Your task to perform on an android device: toggle data saver in the chrome app Image 0: 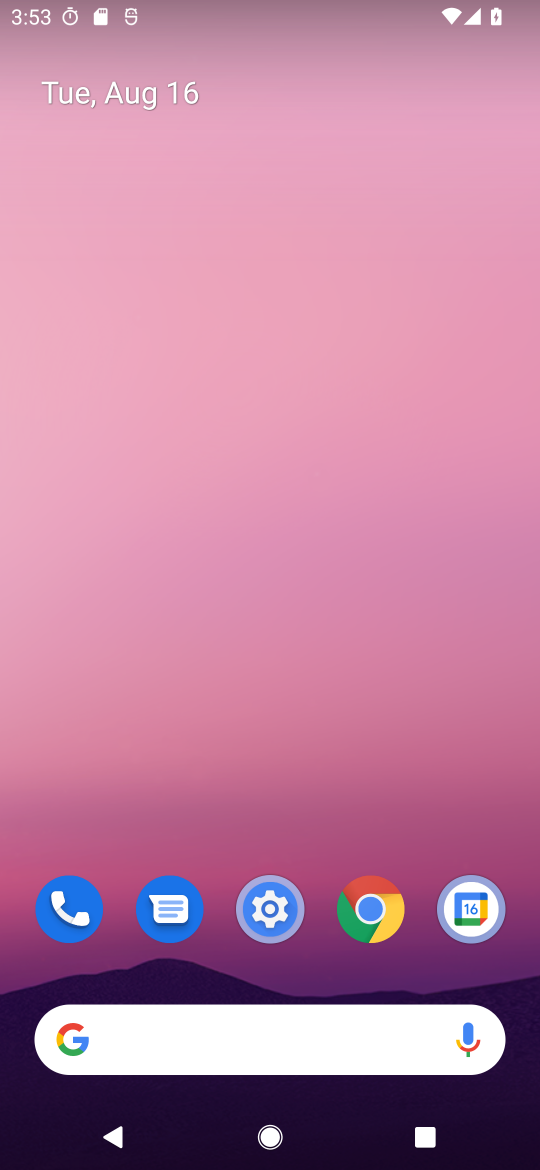
Step 0: click (368, 914)
Your task to perform on an android device: toggle data saver in the chrome app Image 1: 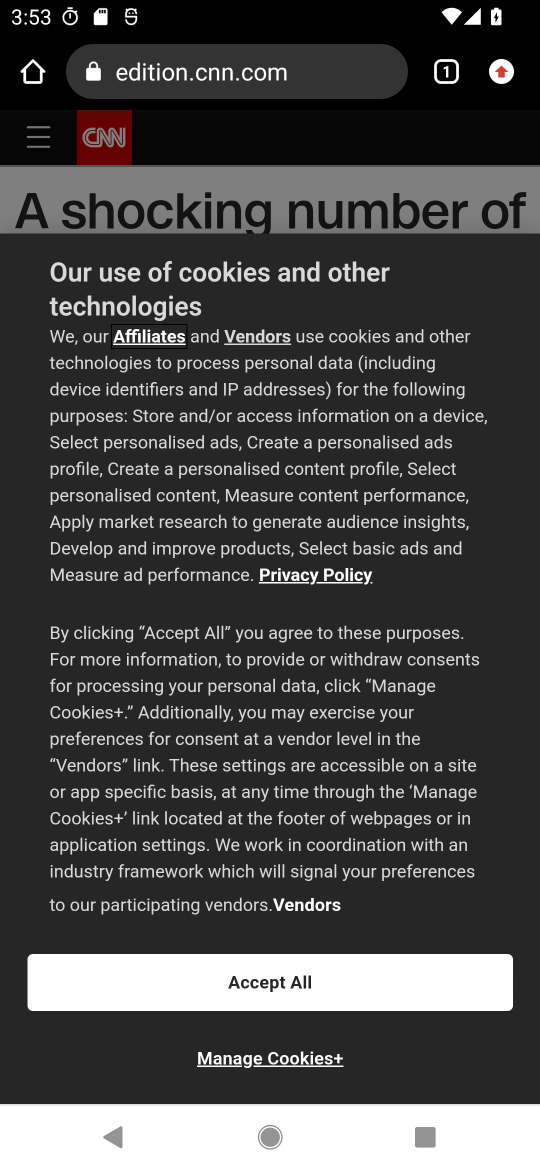
Step 1: click (502, 85)
Your task to perform on an android device: toggle data saver in the chrome app Image 2: 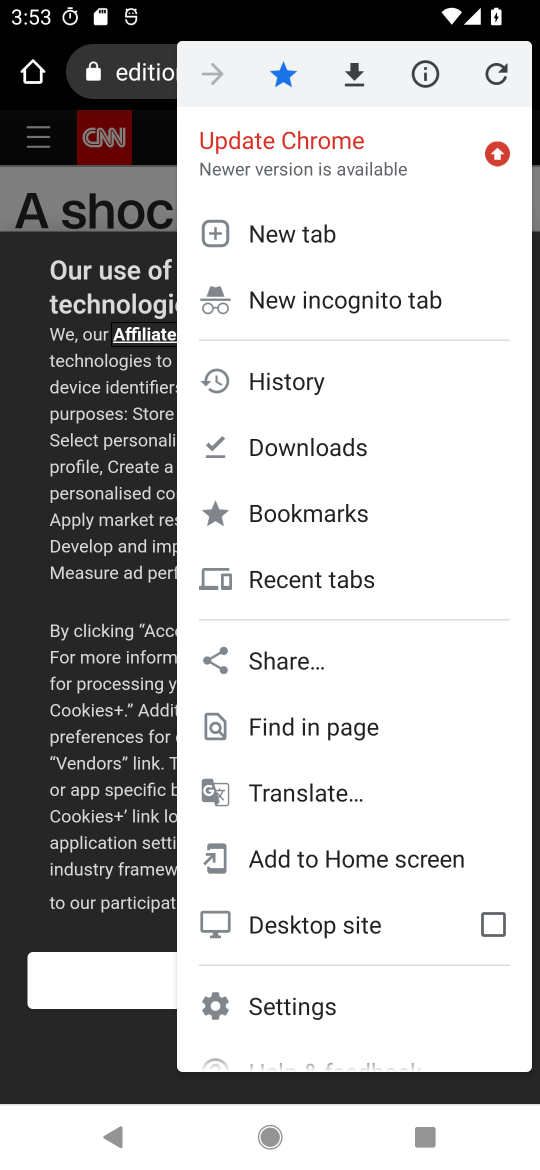
Step 2: click (297, 998)
Your task to perform on an android device: toggle data saver in the chrome app Image 3: 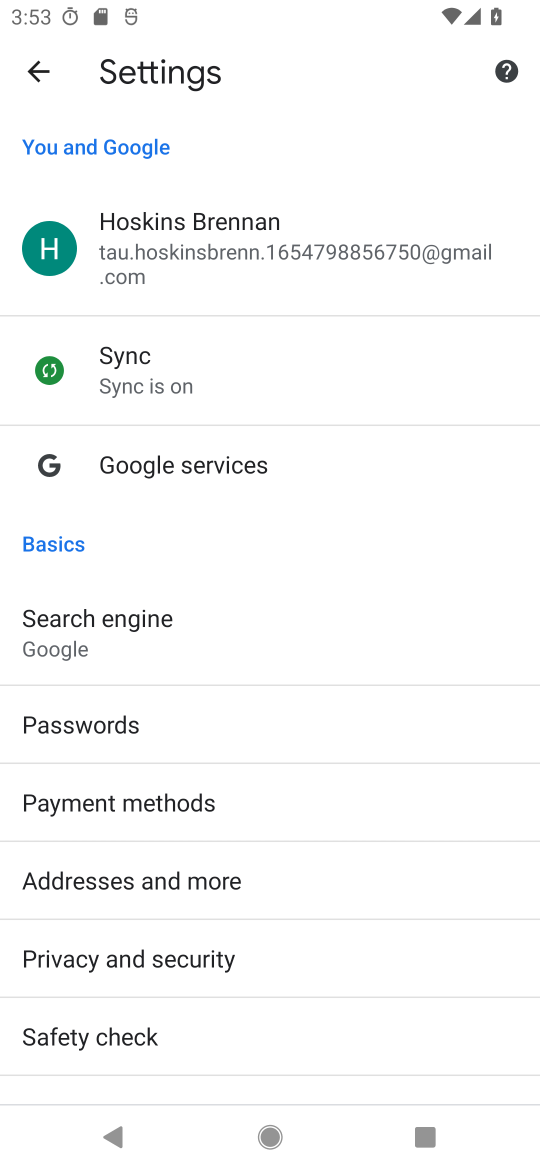
Step 3: drag from (259, 928) to (318, 139)
Your task to perform on an android device: toggle data saver in the chrome app Image 4: 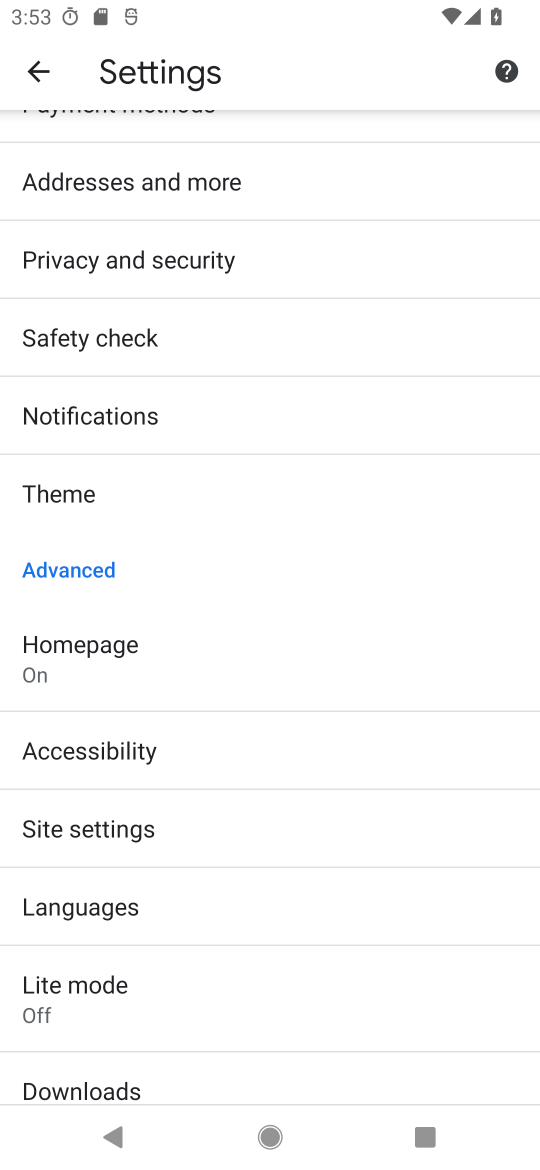
Step 4: drag from (172, 1003) to (233, 485)
Your task to perform on an android device: toggle data saver in the chrome app Image 5: 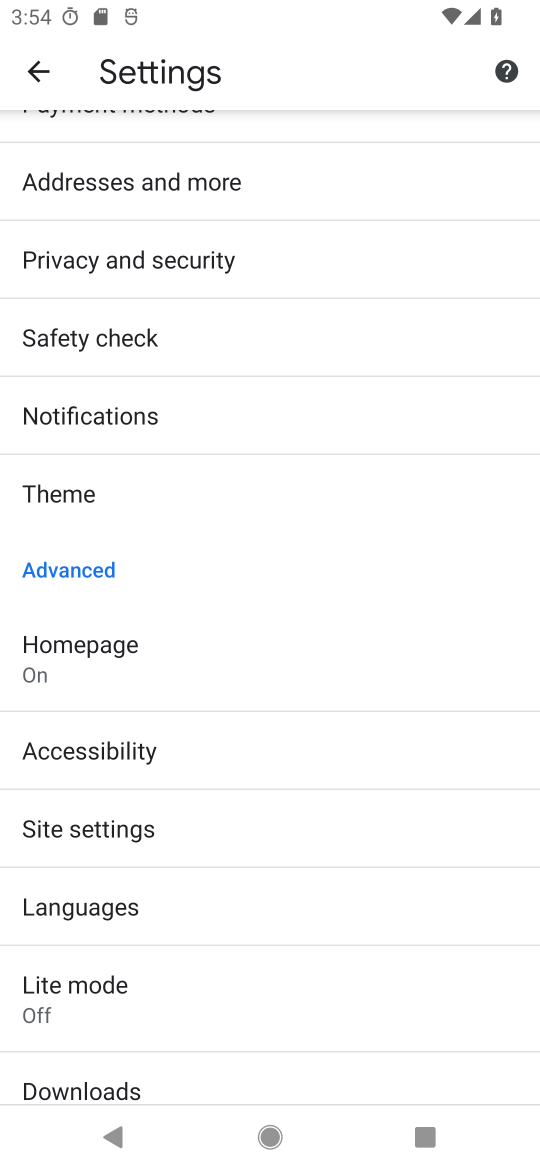
Step 5: click (86, 1011)
Your task to perform on an android device: toggle data saver in the chrome app Image 6: 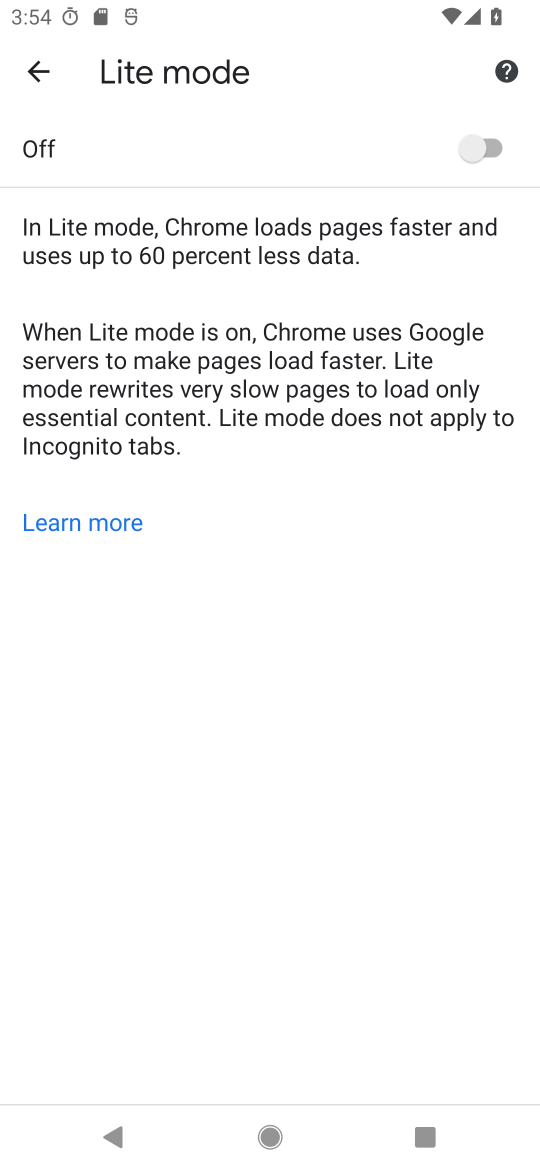
Step 6: click (487, 151)
Your task to perform on an android device: toggle data saver in the chrome app Image 7: 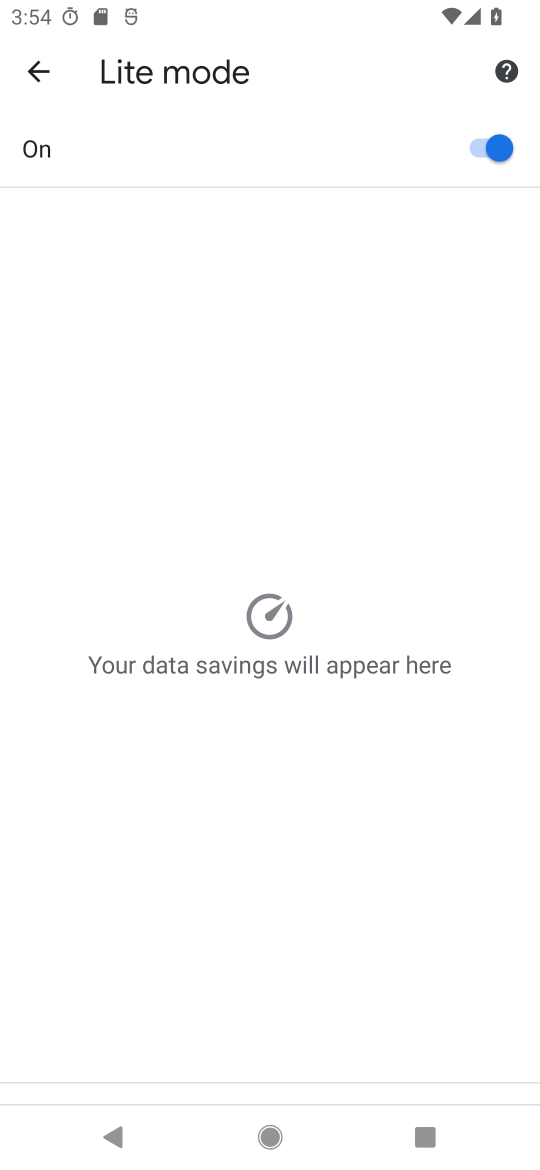
Step 7: task complete